Your task to perform on an android device: check the backup settings in the google photos Image 0: 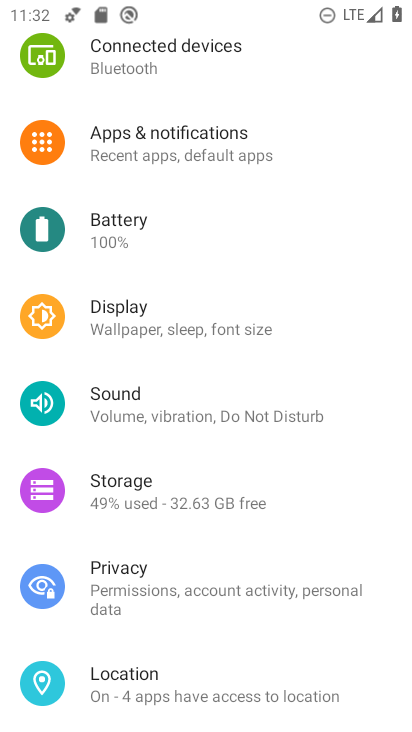
Step 0: press home button
Your task to perform on an android device: check the backup settings in the google photos Image 1: 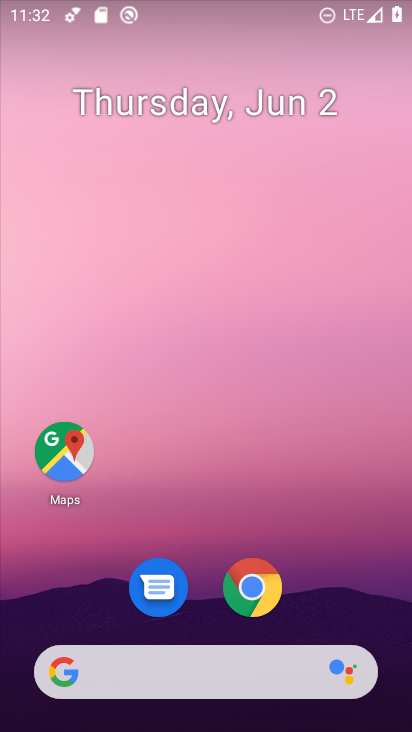
Step 1: drag from (370, 615) to (194, 166)
Your task to perform on an android device: check the backup settings in the google photos Image 2: 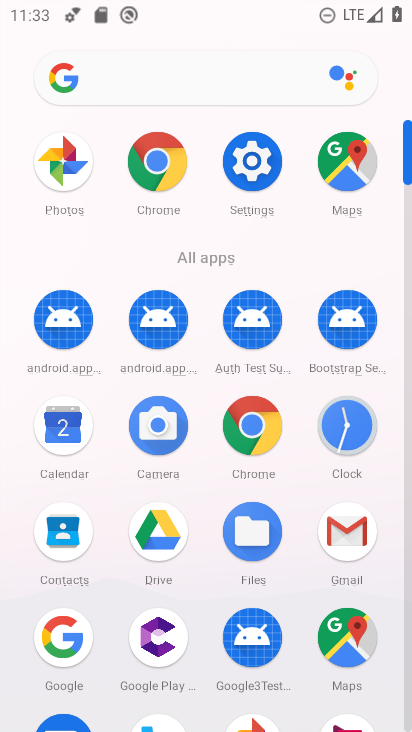
Step 2: click (73, 138)
Your task to perform on an android device: check the backup settings in the google photos Image 3: 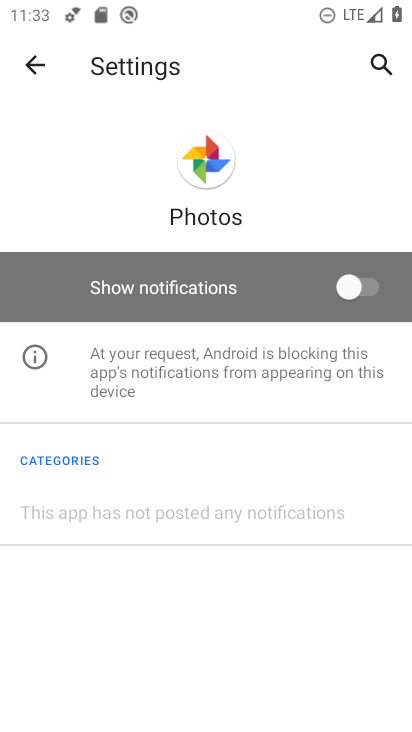
Step 3: click (40, 60)
Your task to perform on an android device: check the backup settings in the google photos Image 4: 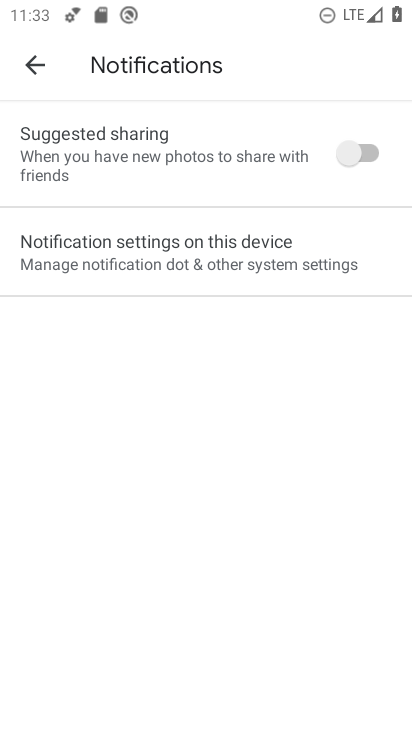
Step 4: click (40, 60)
Your task to perform on an android device: check the backup settings in the google photos Image 5: 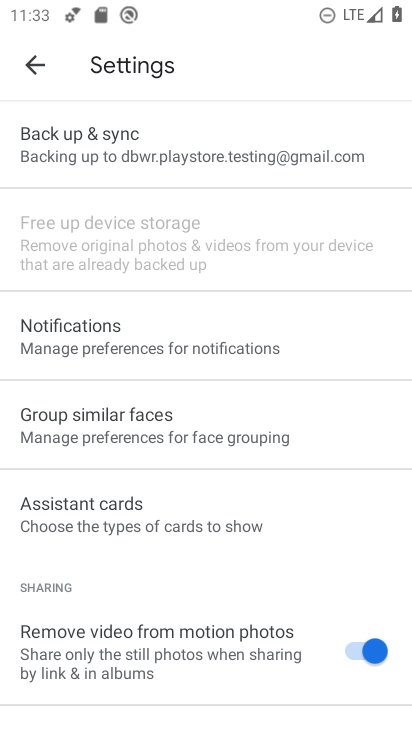
Step 5: click (107, 134)
Your task to perform on an android device: check the backup settings in the google photos Image 6: 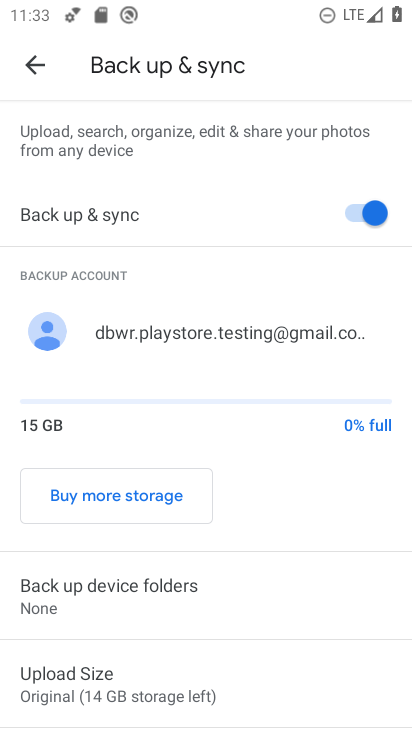
Step 6: task complete